Your task to perform on an android device: Search for pizza restaurants on Maps Image 0: 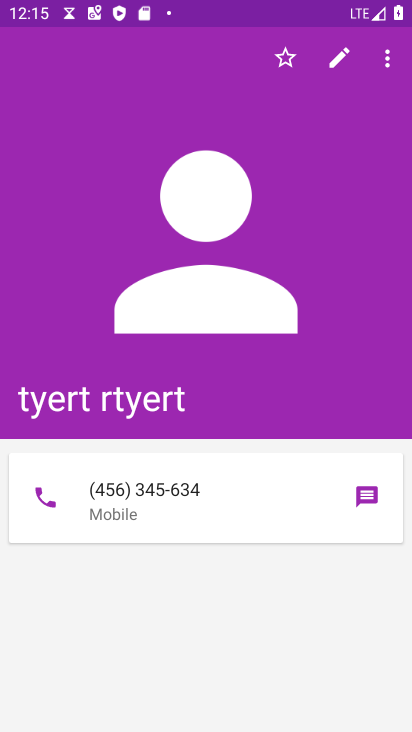
Step 0: press home button
Your task to perform on an android device: Search for pizza restaurants on Maps Image 1: 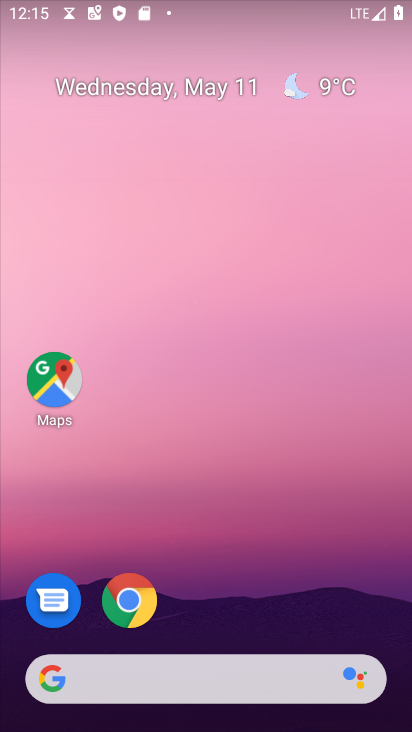
Step 1: click (69, 372)
Your task to perform on an android device: Search for pizza restaurants on Maps Image 2: 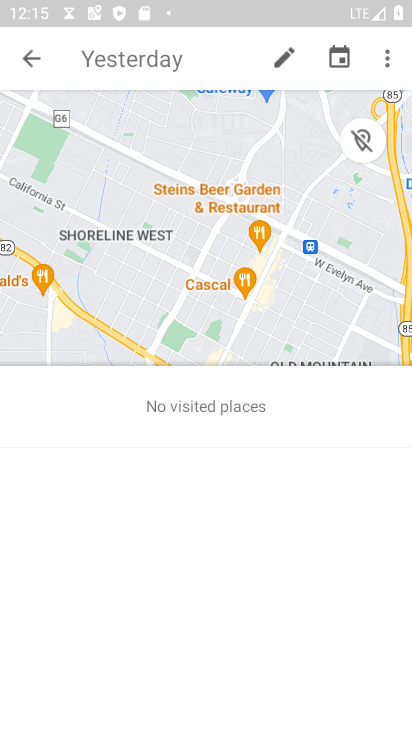
Step 2: click (19, 63)
Your task to perform on an android device: Search for pizza restaurants on Maps Image 3: 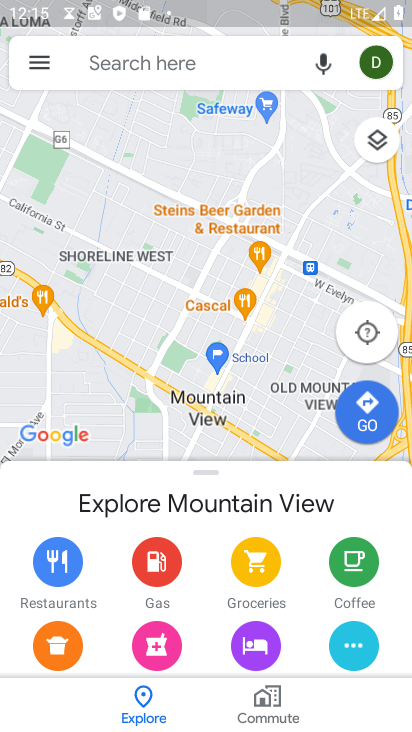
Step 3: click (156, 63)
Your task to perform on an android device: Search for pizza restaurants on Maps Image 4: 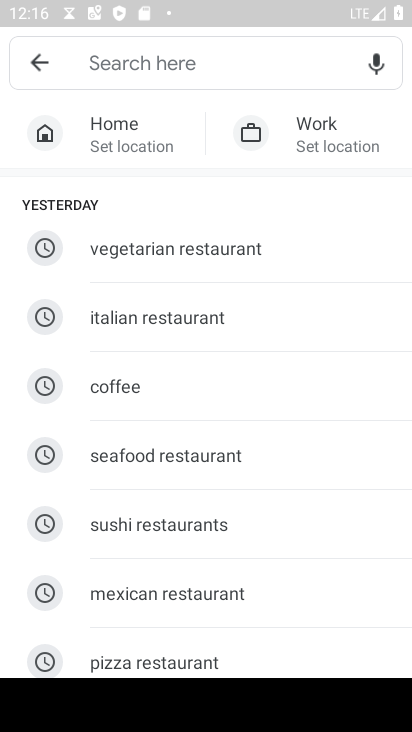
Step 4: click (143, 660)
Your task to perform on an android device: Search for pizza restaurants on Maps Image 5: 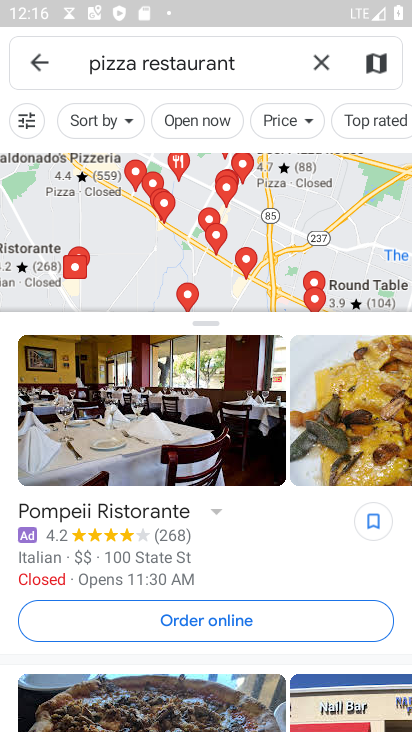
Step 5: task complete